Your task to perform on an android device: Open Google Maps and go to "Timeline" Image 0: 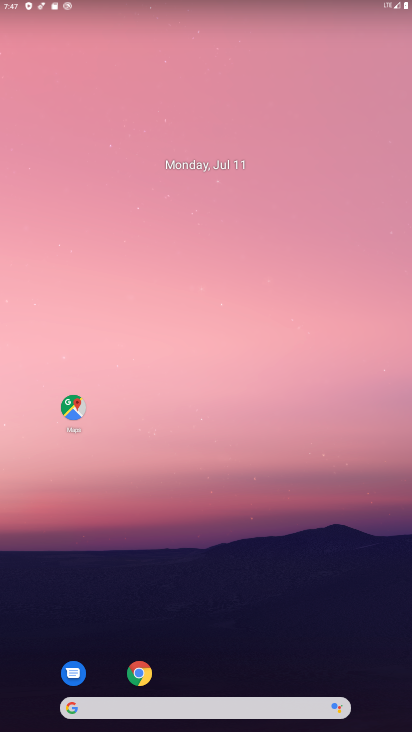
Step 0: drag from (311, 574) to (272, 251)
Your task to perform on an android device: Open Google Maps and go to "Timeline" Image 1: 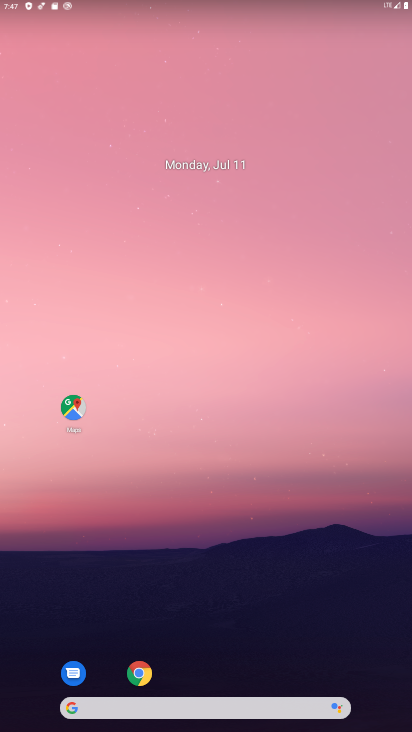
Step 1: drag from (253, 398) to (269, 51)
Your task to perform on an android device: Open Google Maps and go to "Timeline" Image 2: 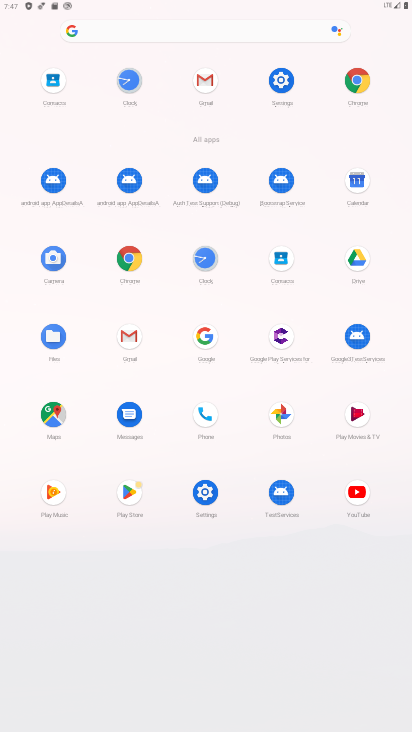
Step 2: click (57, 422)
Your task to perform on an android device: Open Google Maps and go to "Timeline" Image 3: 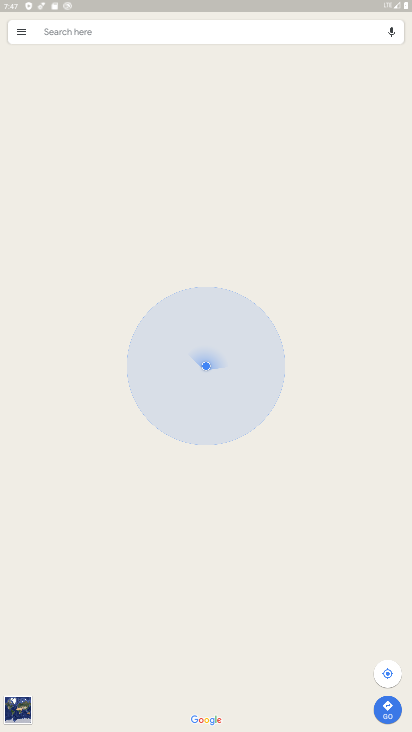
Step 3: click (21, 31)
Your task to perform on an android device: Open Google Maps and go to "Timeline" Image 4: 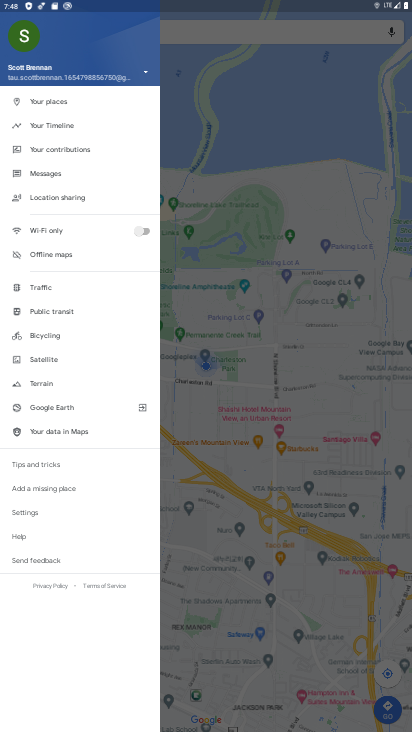
Step 4: click (59, 123)
Your task to perform on an android device: Open Google Maps and go to "Timeline" Image 5: 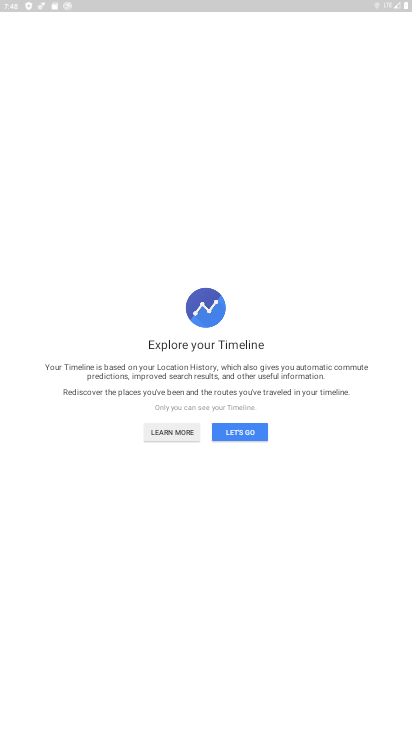
Step 5: click (251, 435)
Your task to perform on an android device: Open Google Maps and go to "Timeline" Image 6: 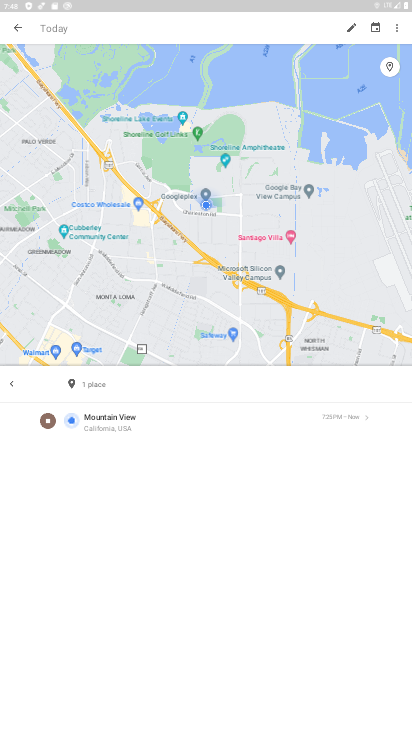
Step 6: task complete